Your task to perform on an android device: Set the phone to "Do not disturb". Image 0: 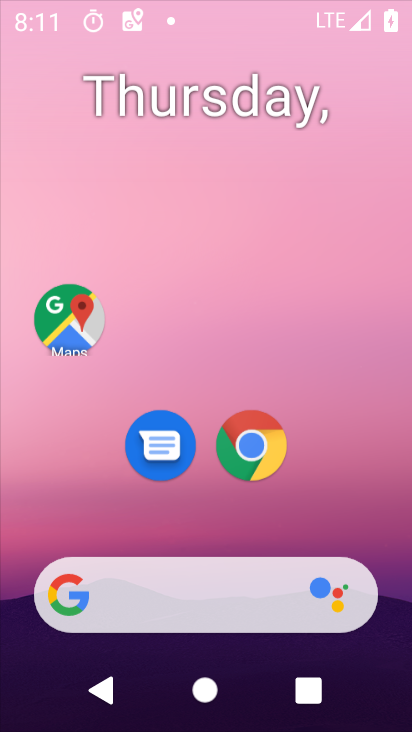
Step 0: click (276, 115)
Your task to perform on an android device: Set the phone to "Do not disturb". Image 1: 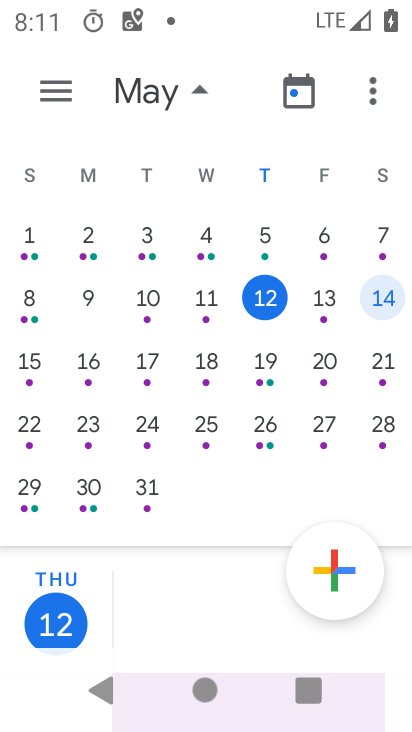
Step 1: press home button
Your task to perform on an android device: Set the phone to "Do not disturb". Image 2: 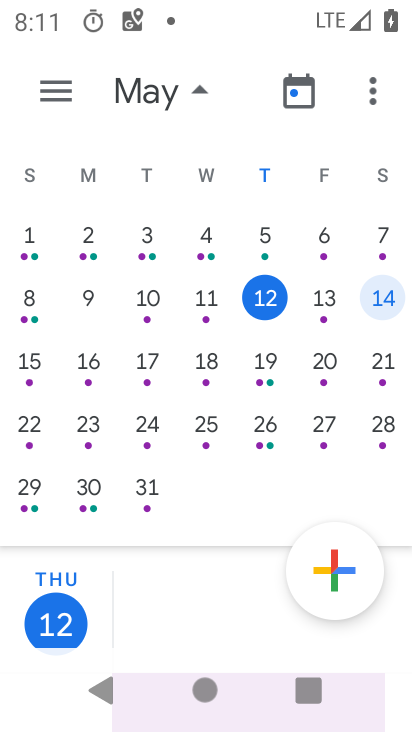
Step 2: press home button
Your task to perform on an android device: Set the phone to "Do not disturb". Image 3: 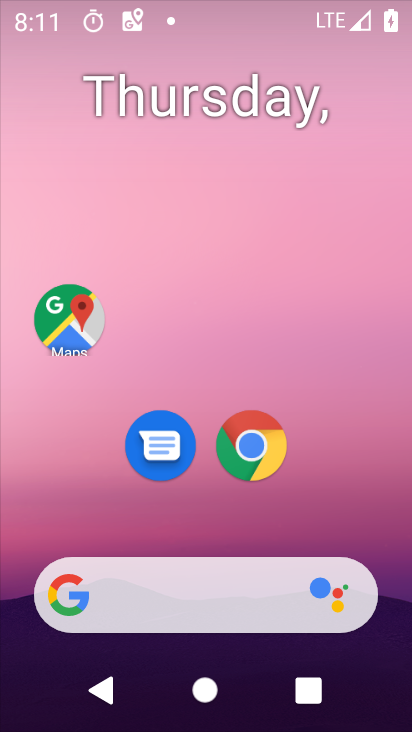
Step 3: drag from (217, 571) to (255, 124)
Your task to perform on an android device: Set the phone to "Do not disturb". Image 4: 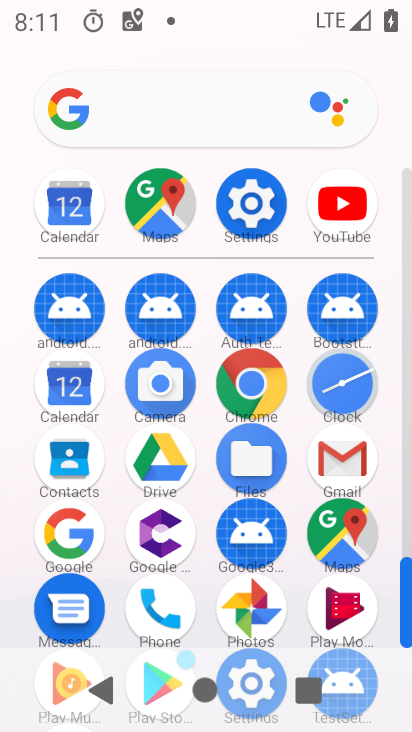
Step 4: click (253, 200)
Your task to perform on an android device: Set the phone to "Do not disturb". Image 5: 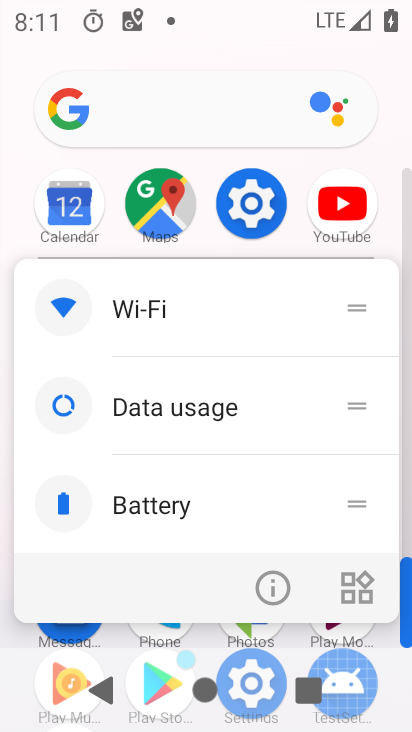
Step 5: click (272, 574)
Your task to perform on an android device: Set the phone to "Do not disturb". Image 6: 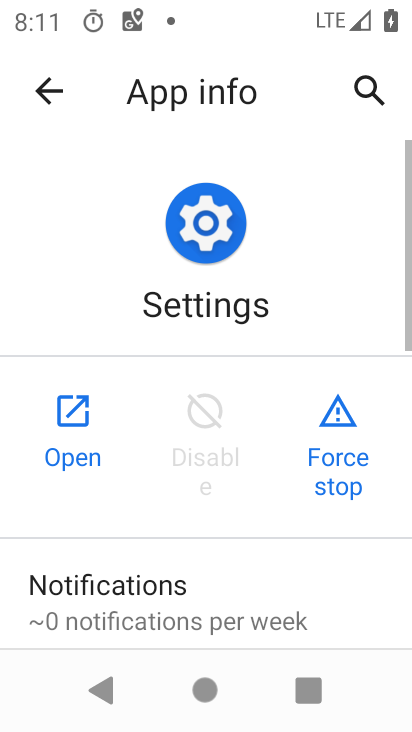
Step 6: click (94, 413)
Your task to perform on an android device: Set the phone to "Do not disturb". Image 7: 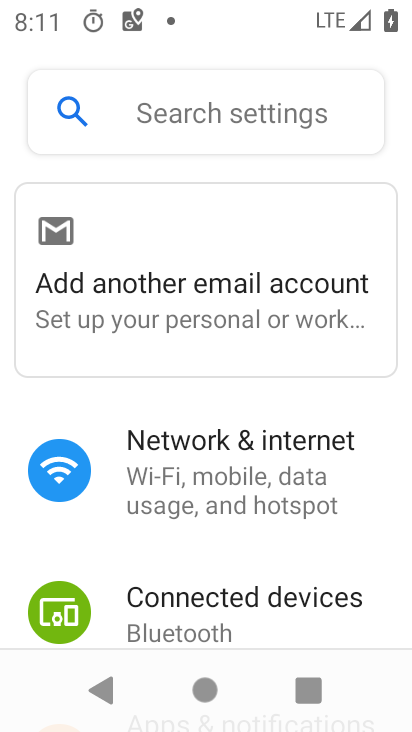
Step 7: drag from (216, 609) to (274, 116)
Your task to perform on an android device: Set the phone to "Do not disturb". Image 8: 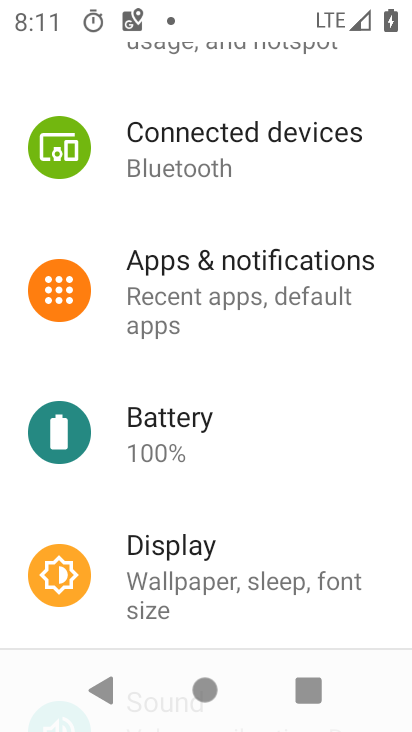
Step 8: click (251, 276)
Your task to perform on an android device: Set the phone to "Do not disturb". Image 9: 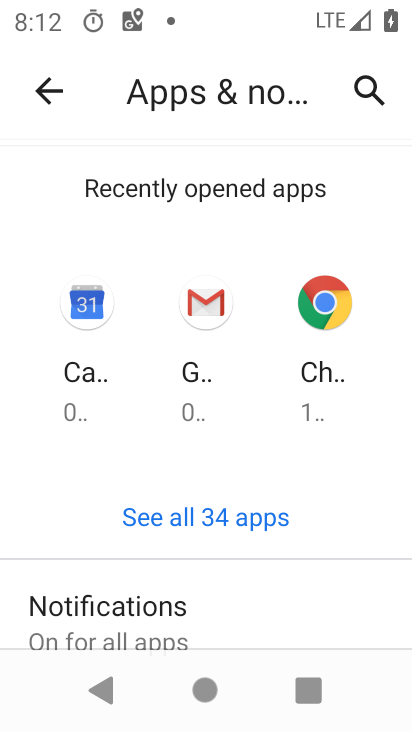
Step 9: drag from (204, 589) to (293, 143)
Your task to perform on an android device: Set the phone to "Do not disturb". Image 10: 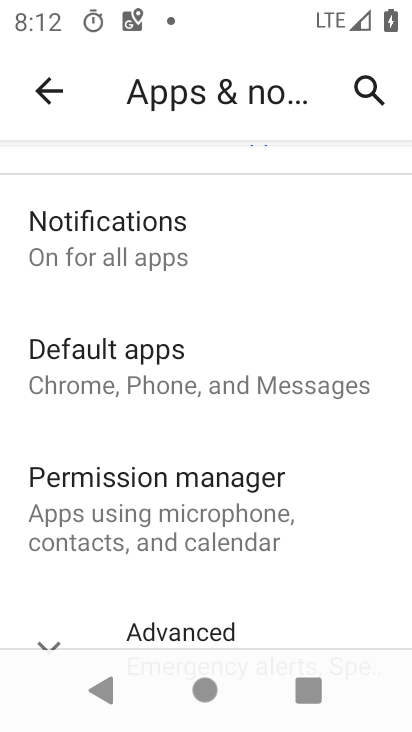
Step 10: drag from (223, 602) to (256, 228)
Your task to perform on an android device: Set the phone to "Do not disturb". Image 11: 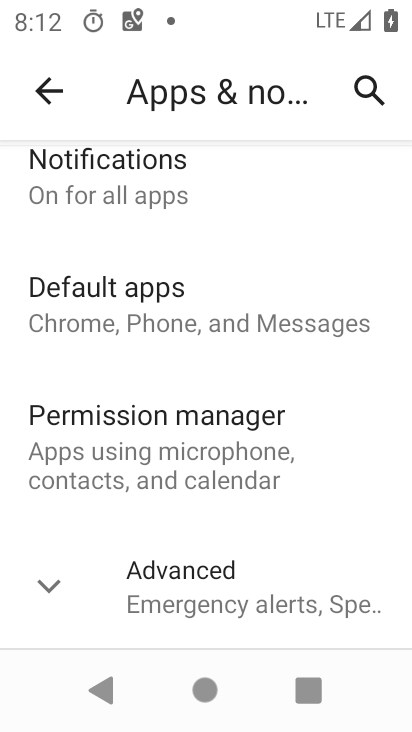
Step 11: click (150, 199)
Your task to perform on an android device: Set the phone to "Do not disturb". Image 12: 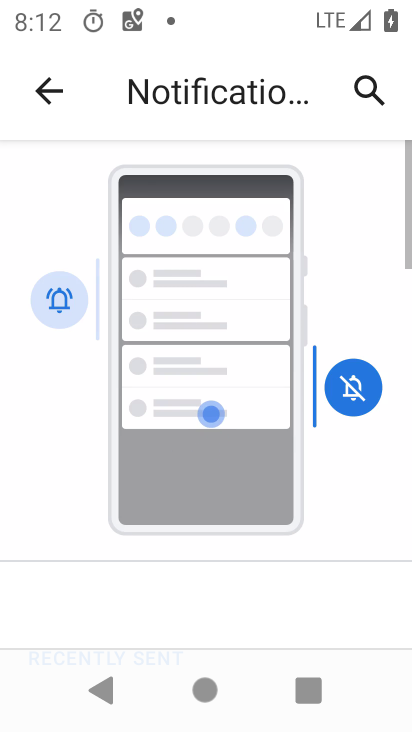
Step 12: drag from (224, 589) to (281, 118)
Your task to perform on an android device: Set the phone to "Do not disturb". Image 13: 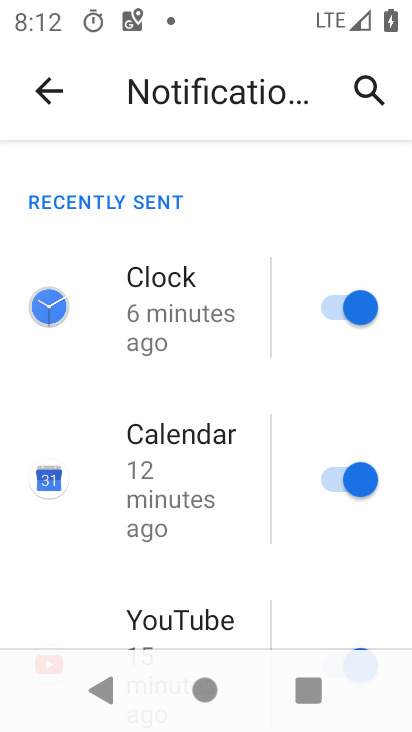
Step 13: drag from (180, 562) to (320, 206)
Your task to perform on an android device: Set the phone to "Do not disturb". Image 14: 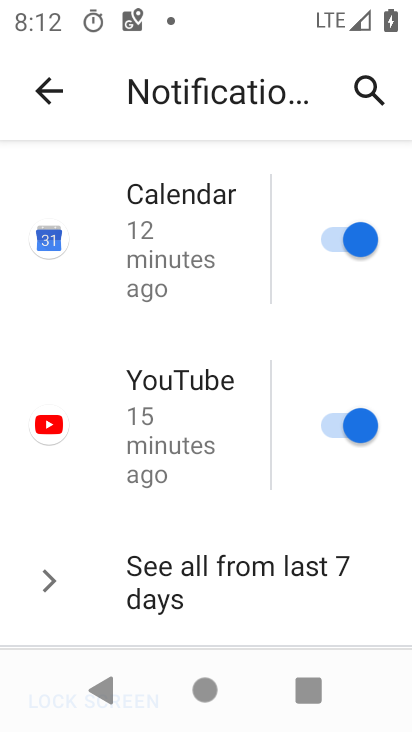
Step 14: drag from (197, 583) to (243, 186)
Your task to perform on an android device: Set the phone to "Do not disturb". Image 15: 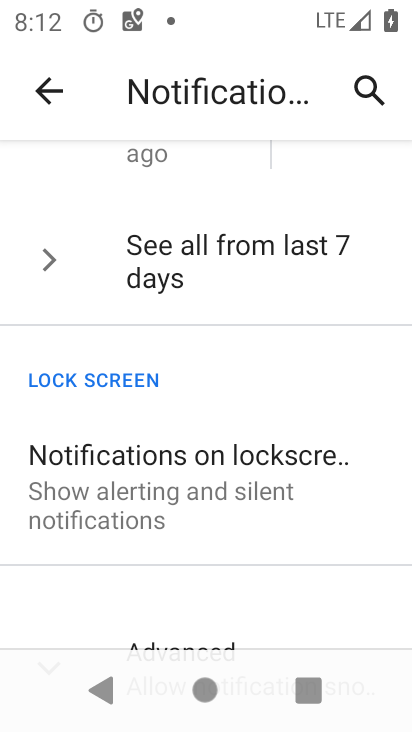
Step 15: drag from (241, 571) to (275, 196)
Your task to perform on an android device: Set the phone to "Do not disturb". Image 16: 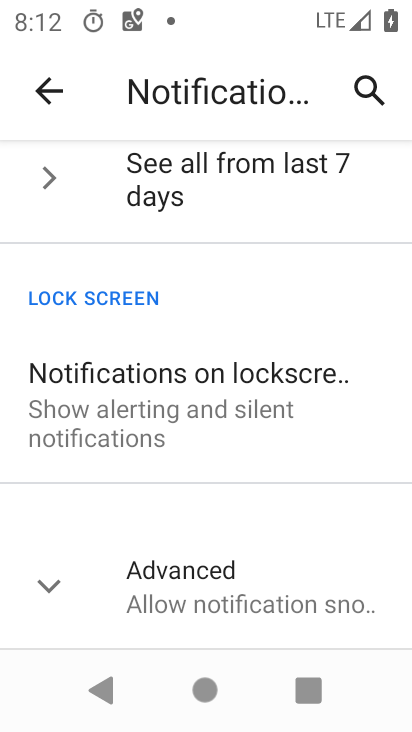
Step 16: drag from (196, 564) to (215, 150)
Your task to perform on an android device: Set the phone to "Do not disturb". Image 17: 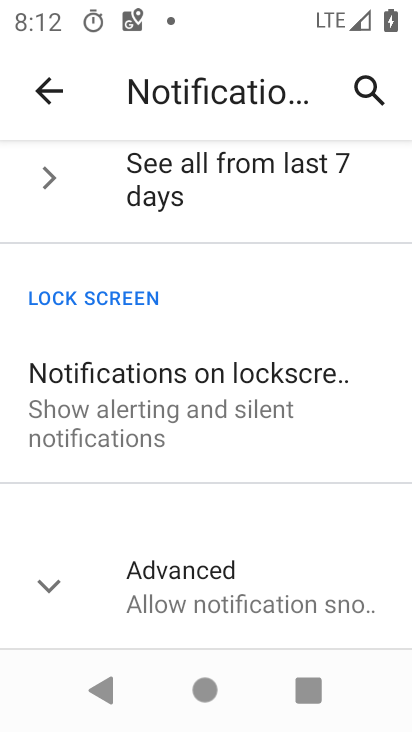
Step 17: click (207, 585)
Your task to perform on an android device: Set the phone to "Do not disturb". Image 18: 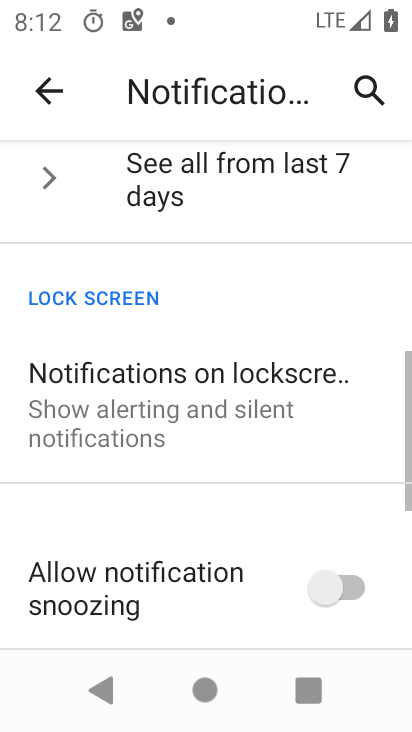
Step 18: drag from (205, 578) to (328, 57)
Your task to perform on an android device: Set the phone to "Do not disturb". Image 19: 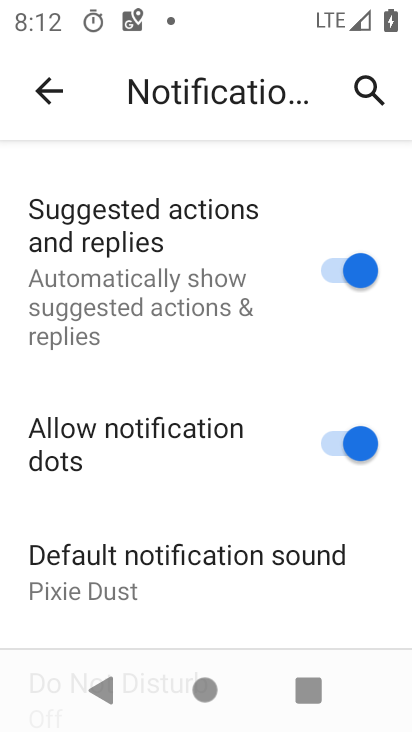
Step 19: drag from (220, 627) to (295, 196)
Your task to perform on an android device: Set the phone to "Do not disturb". Image 20: 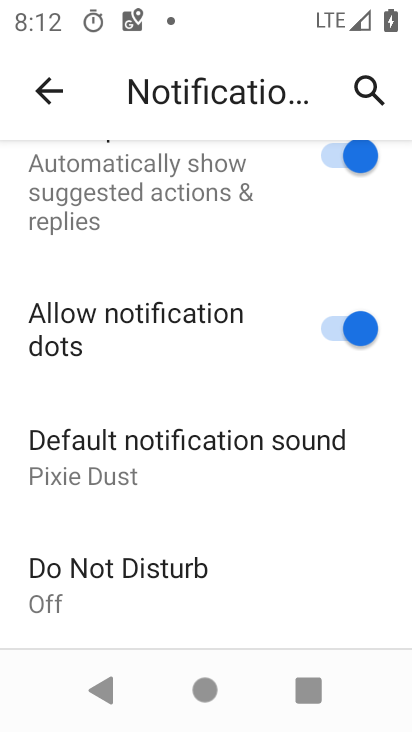
Step 20: drag from (145, 570) to (188, 220)
Your task to perform on an android device: Set the phone to "Do not disturb". Image 21: 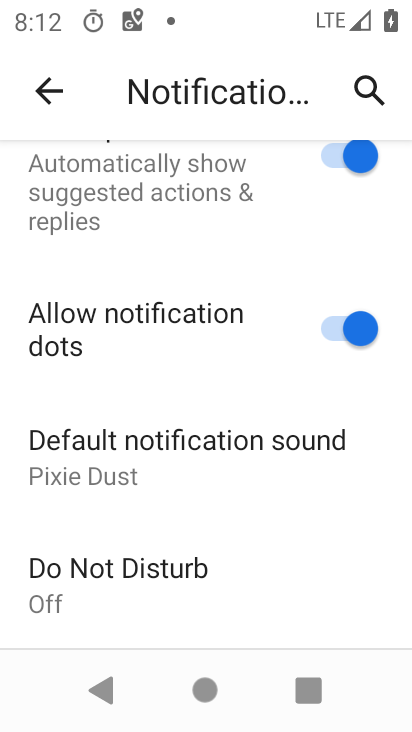
Step 21: click (136, 582)
Your task to perform on an android device: Set the phone to "Do not disturb". Image 22: 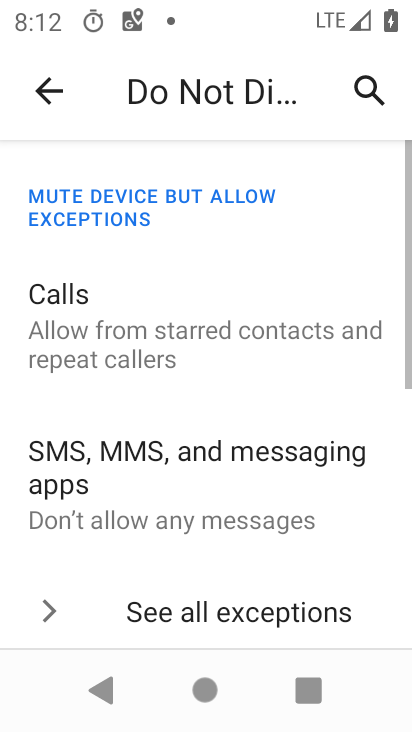
Step 22: drag from (167, 576) to (226, 128)
Your task to perform on an android device: Set the phone to "Do not disturb". Image 23: 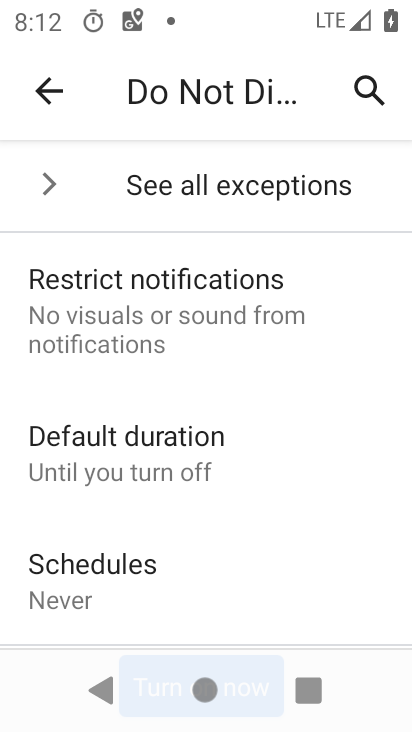
Step 23: drag from (227, 650) to (294, 171)
Your task to perform on an android device: Set the phone to "Do not disturb". Image 24: 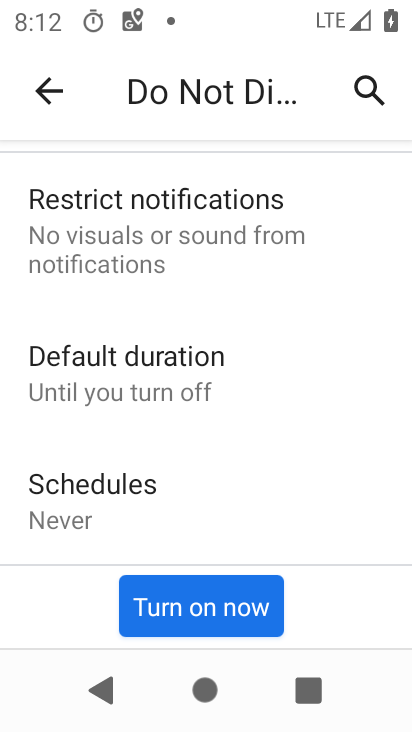
Step 24: drag from (146, 601) to (183, 354)
Your task to perform on an android device: Set the phone to "Do not disturb". Image 25: 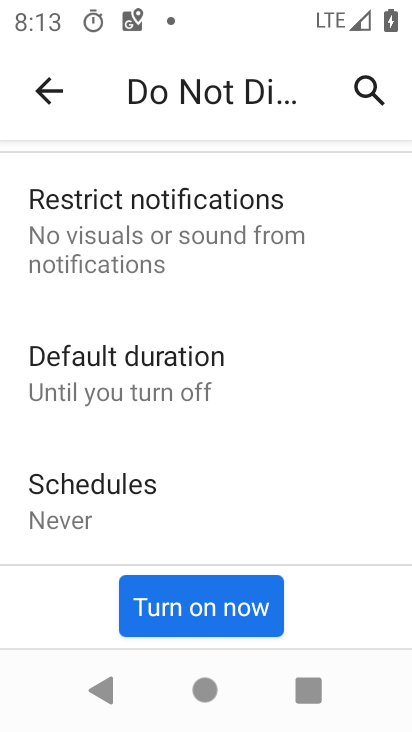
Step 25: click (201, 598)
Your task to perform on an android device: Set the phone to "Do not disturb". Image 26: 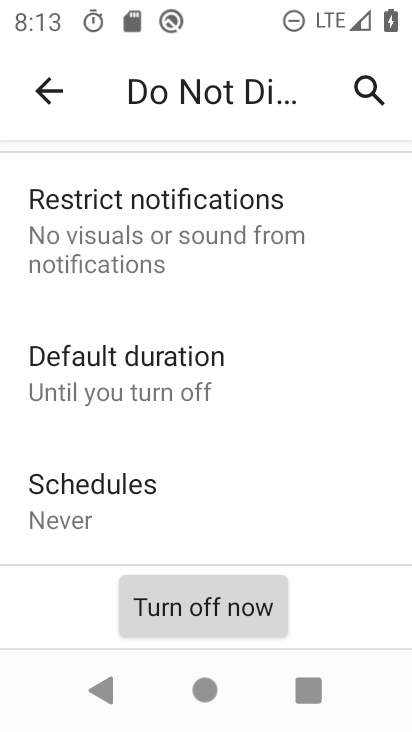
Step 26: task complete